Your task to perform on an android device: Open Chrome and go to the settings page Image 0: 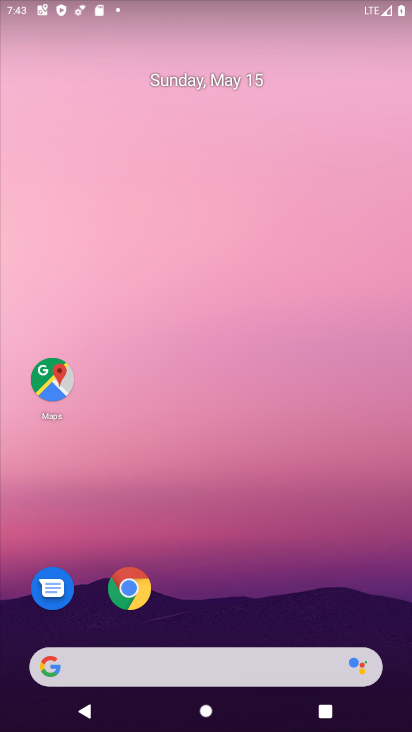
Step 0: drag from (346, 609) to (354, 553)
Your task to perform on an android device: Open Chrome and go to the settings page Image 1: 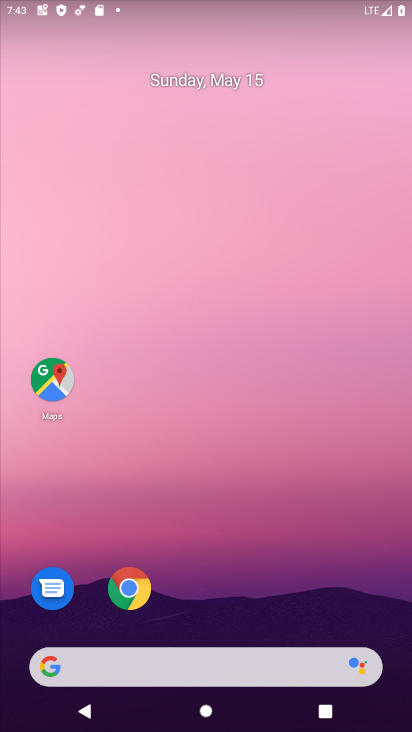
Step 1: click (138, 379)
Your task to perform on an android device: Open Chrome and go to the settings page Image 2: 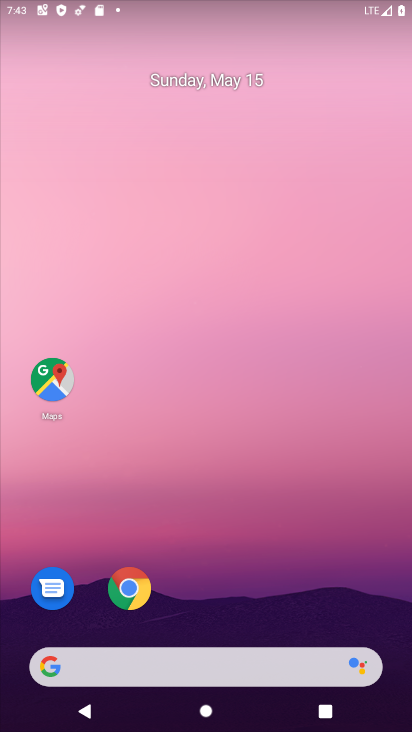
Step 2: click (120, 599)
Your task to perform on an android device: Open Chrome and go to the settings page Image 3: 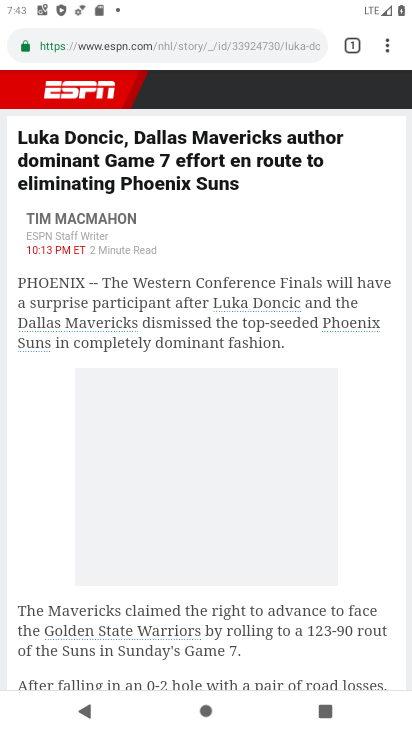
Step 3: press back button
Your task to perform on an android device: Open Chrome and go to the settings page Image 4: 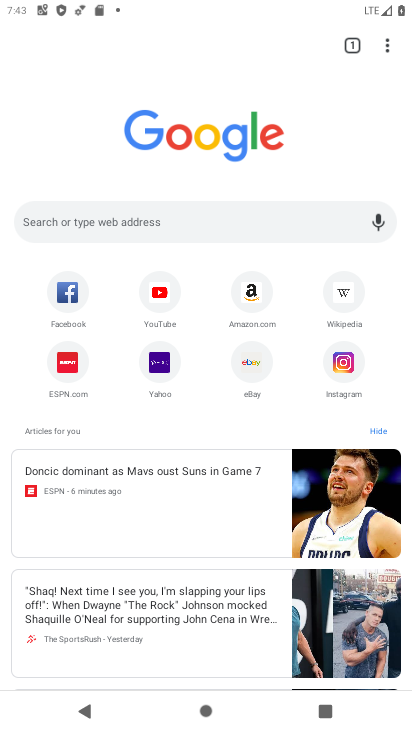
Step 4: click (387, 42)
Your task to perform on an android device: Open Chrome and go to the settings page Image 5: 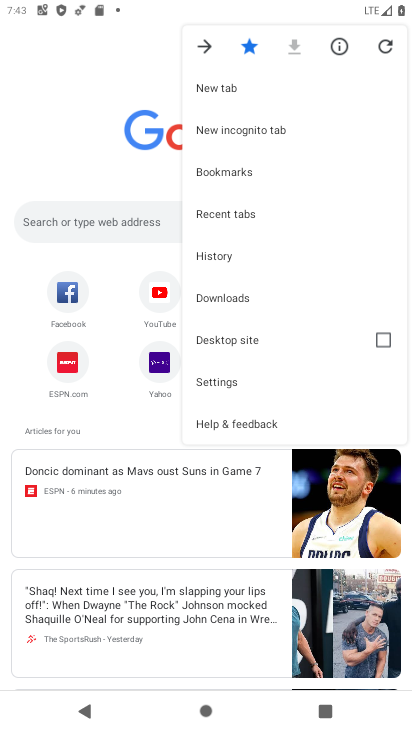
Step 5: click (260, 382)
Your task to perform on an android device: Open Chrome and go to the settings page Image 6: 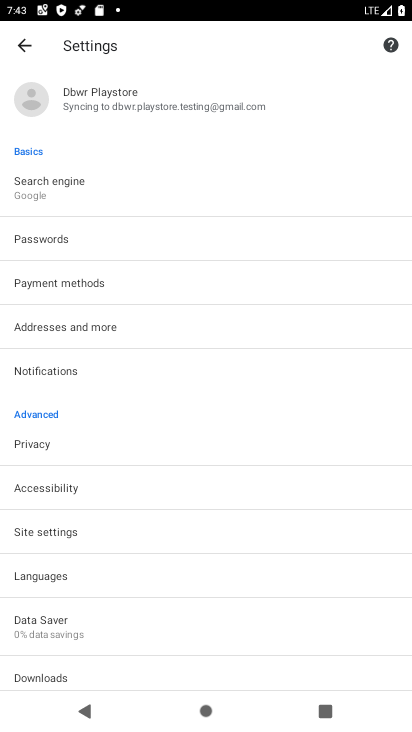
Step 6: task complete